Your task to perform on an android device: Show me productivity apps on the Play Store Image 0: 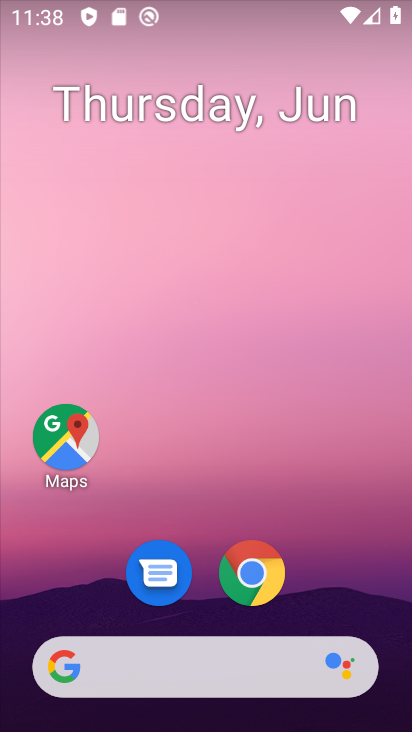
Step 0: task complete